Your task to perform on an android device: Go to privacy settings Image 0: 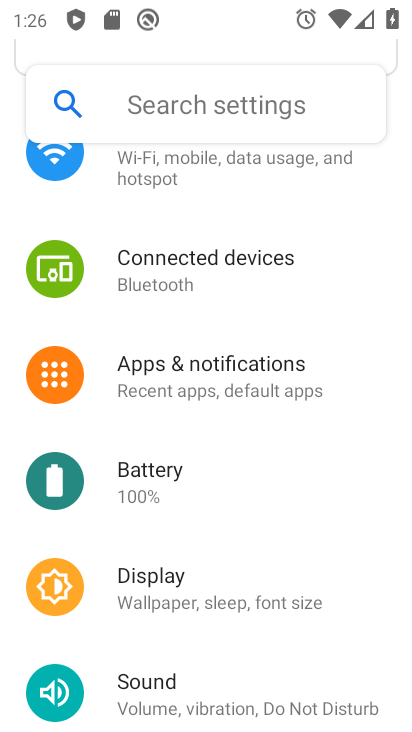
Step 0: press home button
Your task to perform on an android device: Go to privacy settings Image 1: 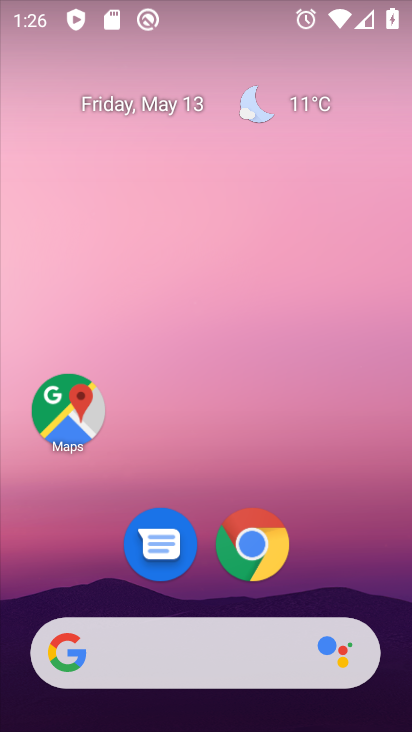
Step 1: drag from (210, 563) to (204, 193)
Your task to perform on an android device: Go to privacy settings Image 2: 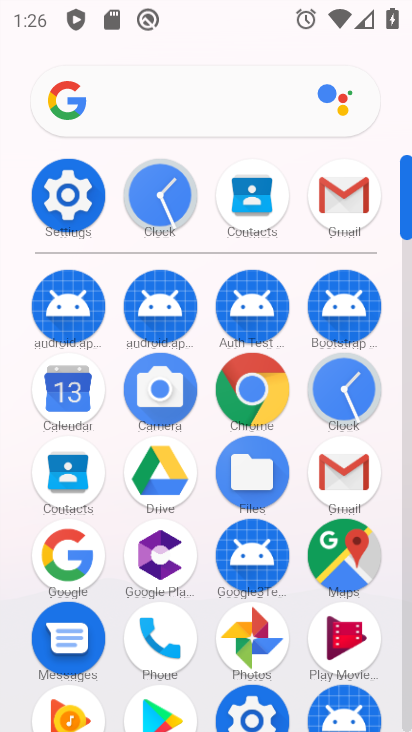
Step 2: click (73, 191)
Your task to perform on an android device: Go to privacy settings Image 3: 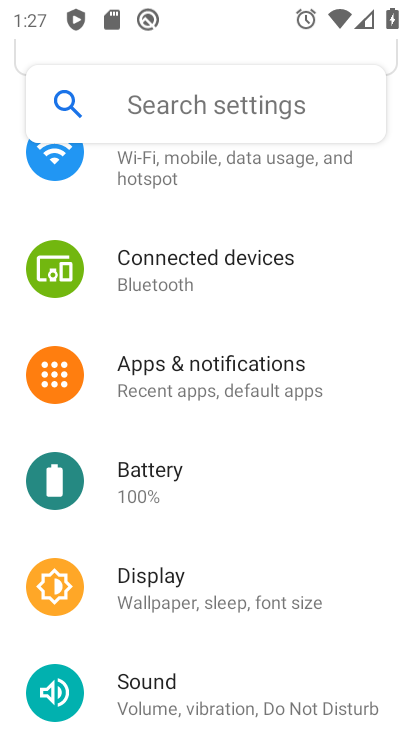
Step 3: drag from (258, 521) to (267, 212)
Your task to perform on an android device: Go to privacy settings Image 4: 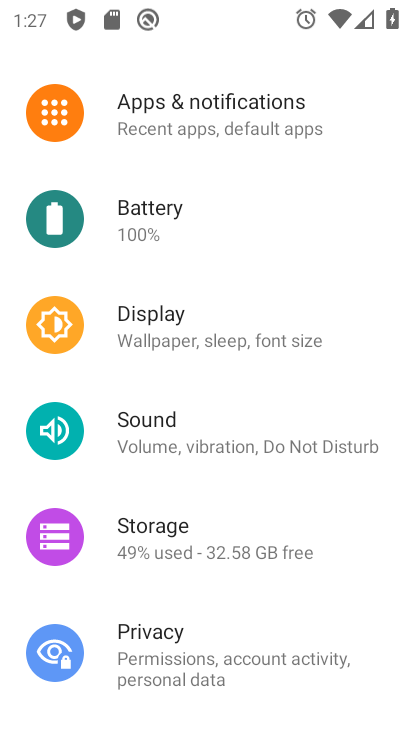
Step 4: click (177, 643)
Your task to perform on an android device: Go to privacy settings Image 5: 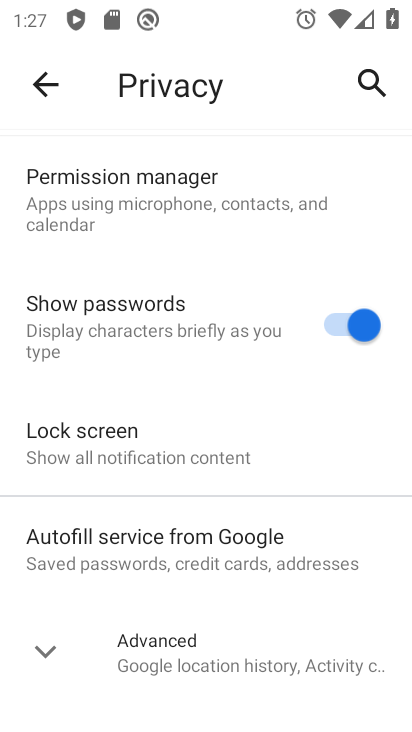
Step 5: task complete